Your task to perform on an android device: Open the Play Movies app and select the watchlist tab. Image 0: 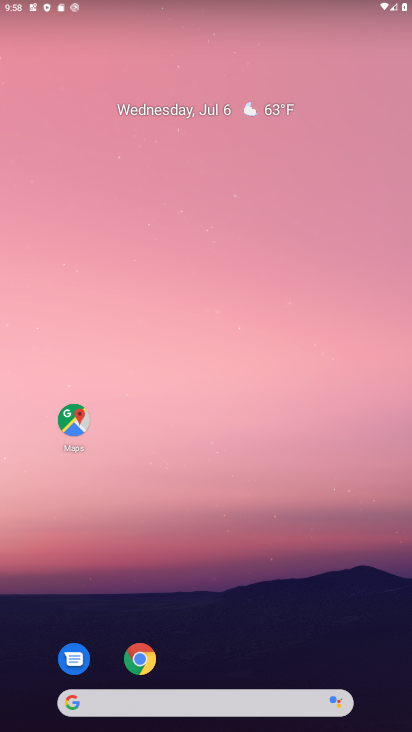
Step 0: click (410, 180)
Your task to perform on an android device: Open the Play Movies app and select the watchlist tab. Image 1: 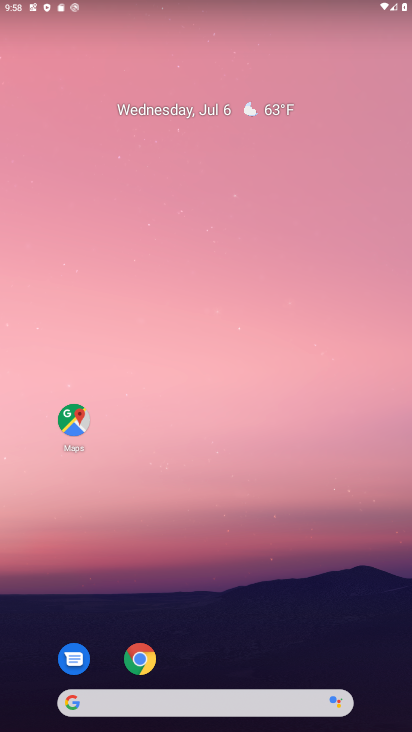
Step 1: drag from (189, 658) to (231, 130)
Your task to perform on an android device: Open the Play Movies app and select the watchlist tab. Image 2: 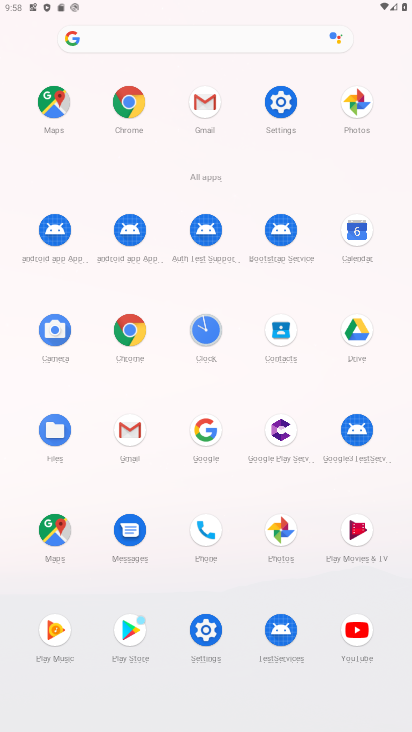
Step 2: click (349, 537)
Your task to perform on an android device: Open the Play Movies app and select the watchlist tab. Image 3: 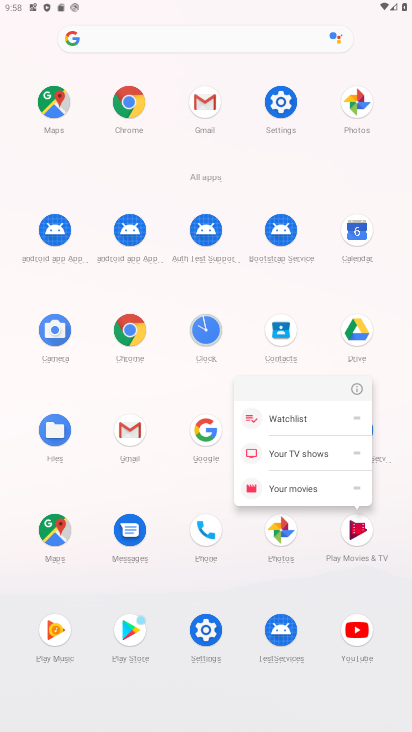
Step 3: click (360, 379)
Your task to perform on an android device: Open the Play Movies app and select the watchlist tab. Image 4: 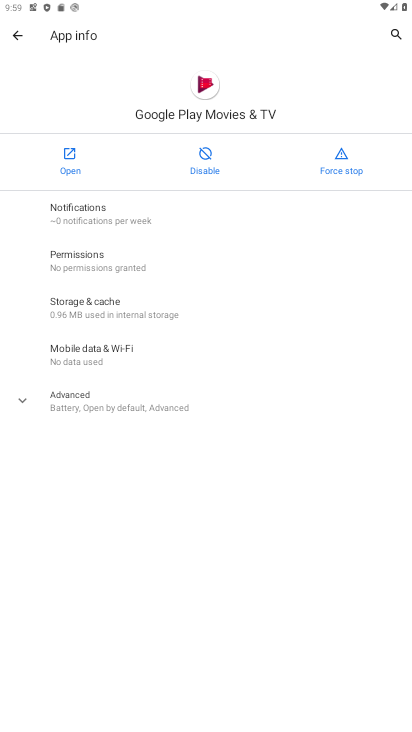
Step 4: click (69, 167)
Your task to perform on an android device: Open the Play Movies app and select the watchlist tab. Image 5: 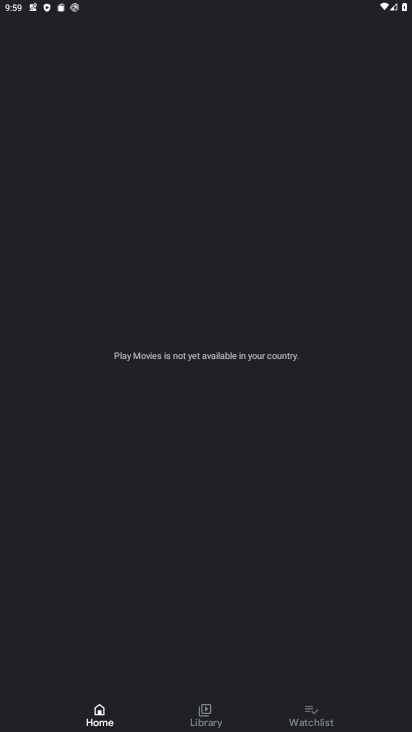
Step 5: drag from (202, 601) to (172, 227)
Your task to perform on an android device: Open the Play Movies app and select the watchlist tab. Image 6: 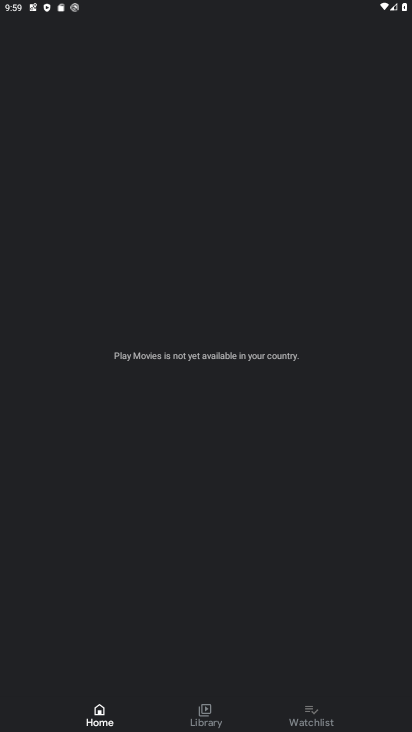
Step 6: click (301, 716)
Your task to perform on an android device: Open the Play Movies app and select the watchlist tab. Image 7: 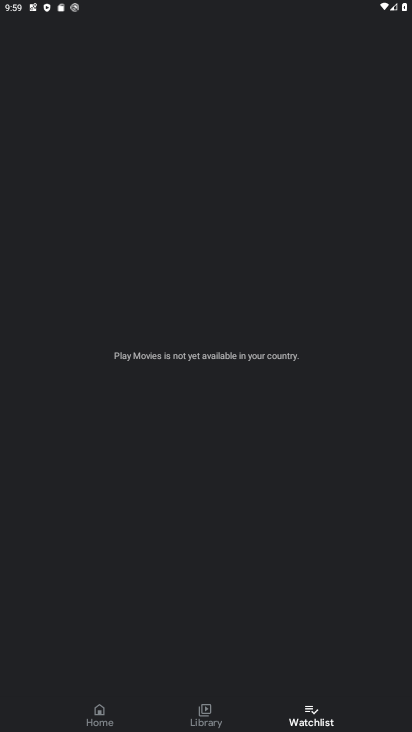
Step 7: task complete